Your task to perform on an android device: Open the Play Movies app and select the watchlist tab. Image 0: 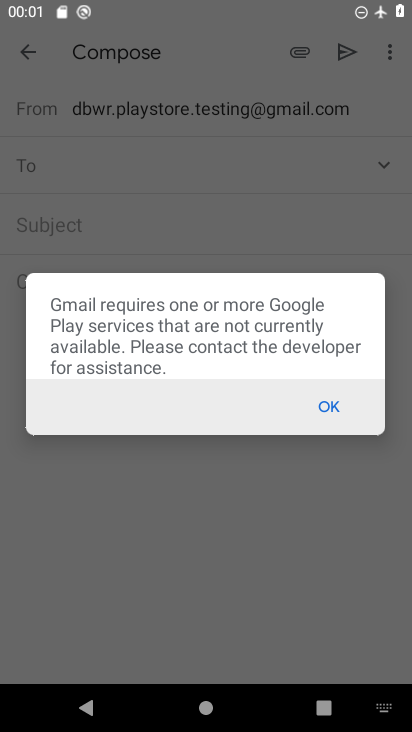
Step 0: press home button
Your task to perform on an android device: Open the Play Movies app and select the watchlist tab. Image 1: 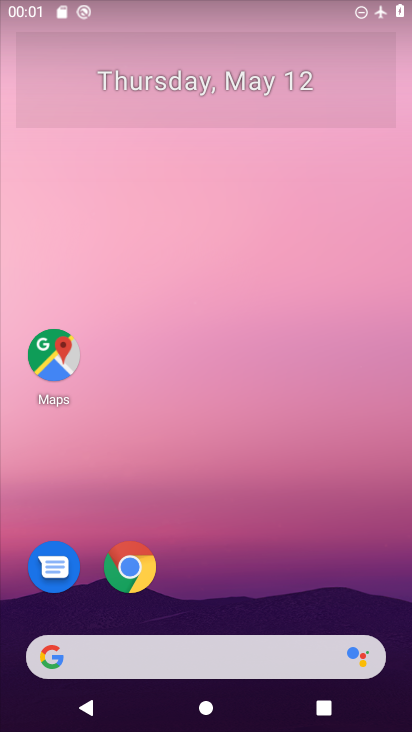
Step 1: drag from (268, 640) to (375, 83)
Your task to perform on an android device: Open the Play Movies app and select the watchlist tab. Image 2: 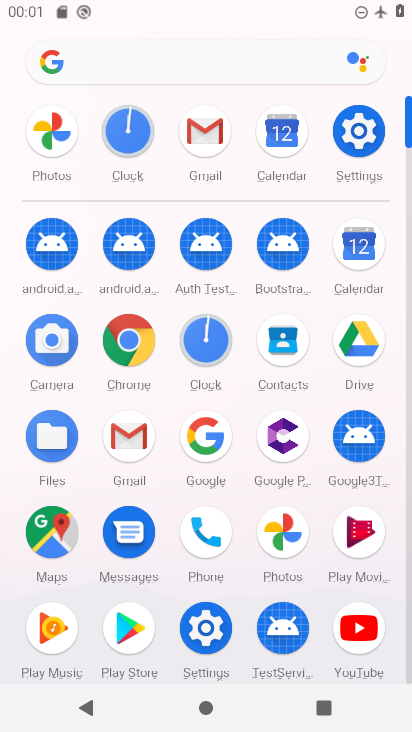
Step 2: click (374, 538)
Your task to perform on an android device: Open the Play Movies app and select the watchlist tab. Image 3: 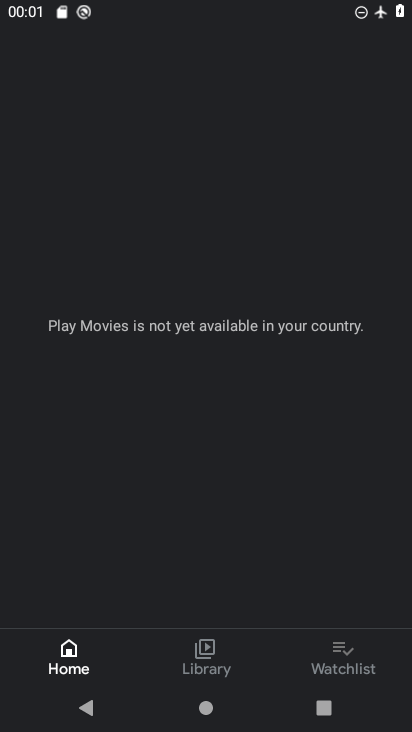
Step 3: click (352, 646)
Your task to perform on an android device: Open the Play Movies app and select the watchlist tab. Image 4: 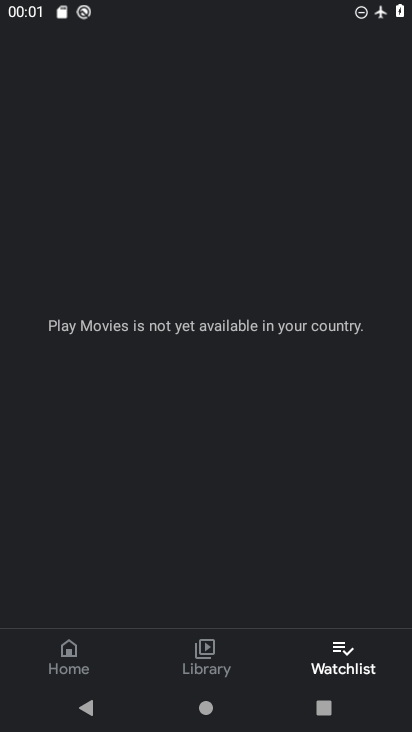
Step 4: task complete